Your task to perform on an android device: Open Yahoo.com Image 0: 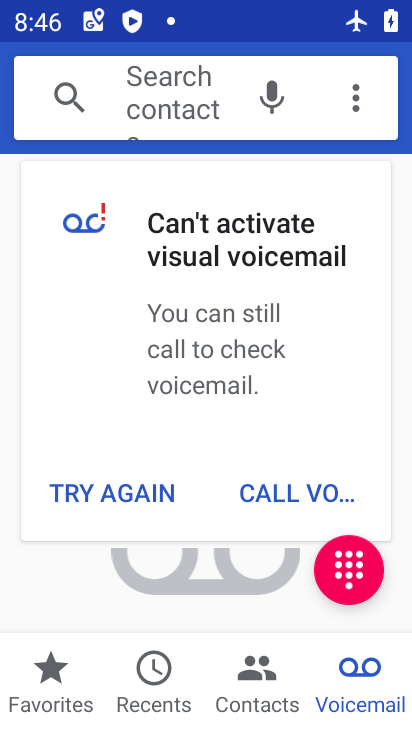
Step 0: press home button
Your task to perform on an android device: Open Yahoo.com Image 1: 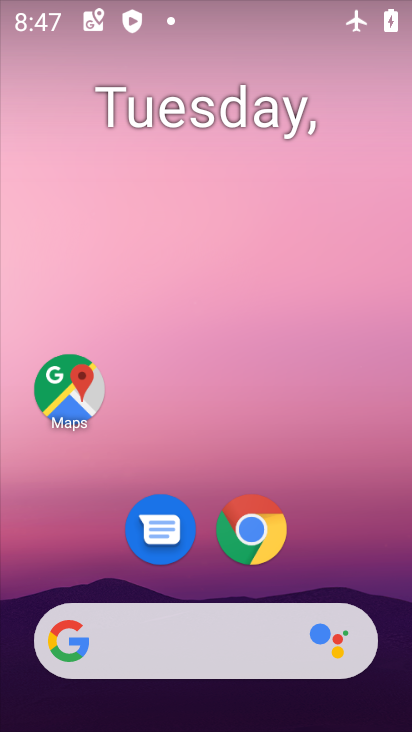
Step 1: drag from (191, 647) to (264, 169)
Your task to perform on an android device: Open Yahoo.com Image 2: 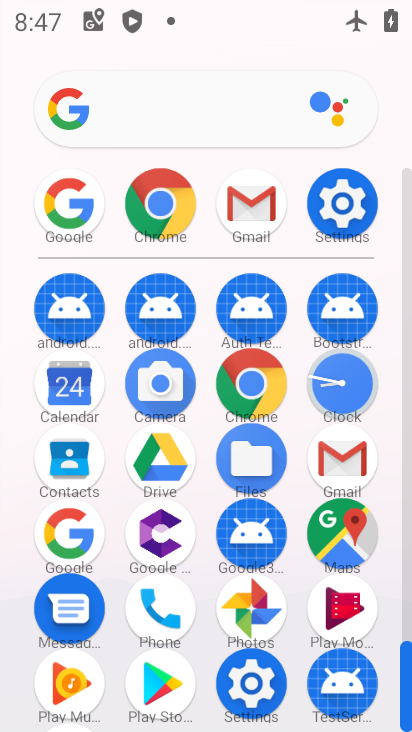
Step 2: click (163, 218)
Your task to perform on an android device: Open Yahoo.com Image 3: 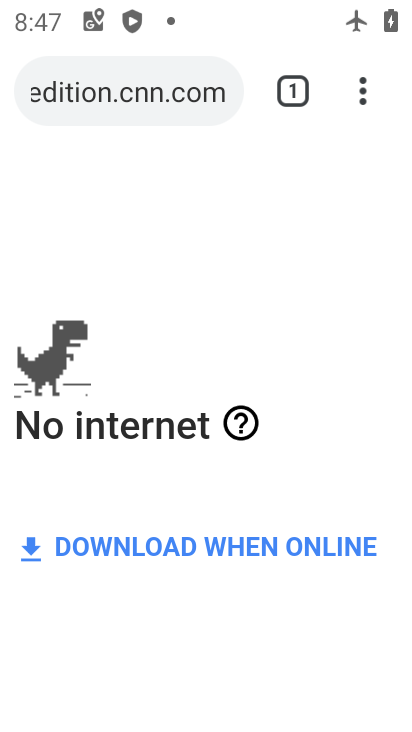
Step 3: click (188, 101)
Your task to perform on an android device: Open Yahoo.com Image 4: 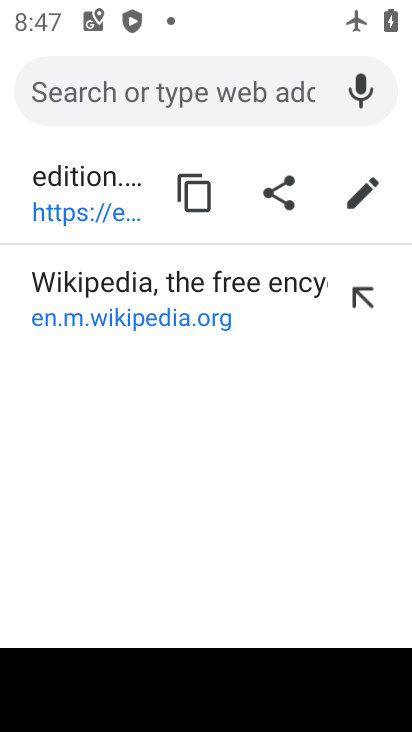
Step 4: type "yahoo"
Your task to perform on an android device: Open Yahoo.com Image 5: 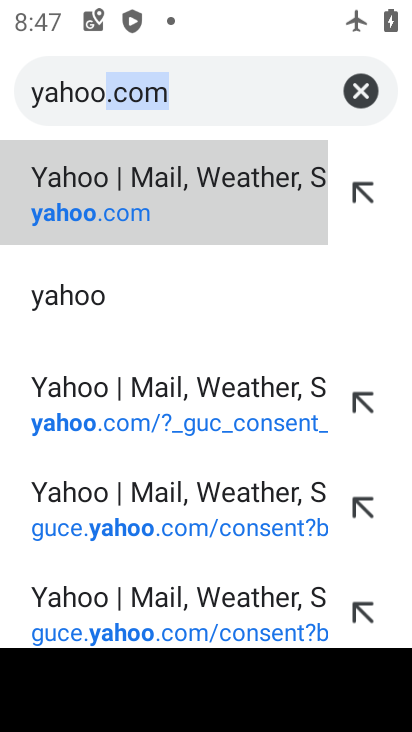
Step 5: click (213, 193)
Your task to perform on an android device: Open Yahoo.com Image 6: 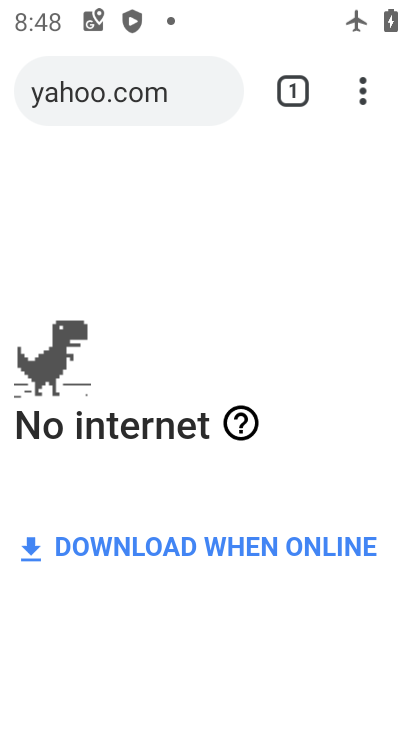
Step 6: task complete